Your task to perform on an android device: check android version Image 0: 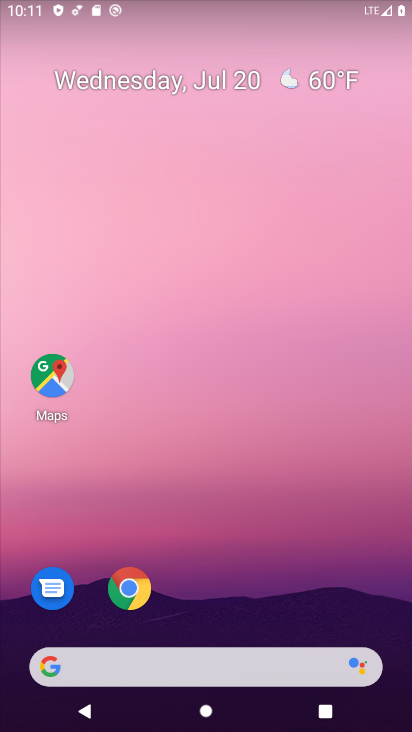
Step 0: drag from (208, 620) to (230, 3)
Your task to perform on an android device: check android version Image 1: 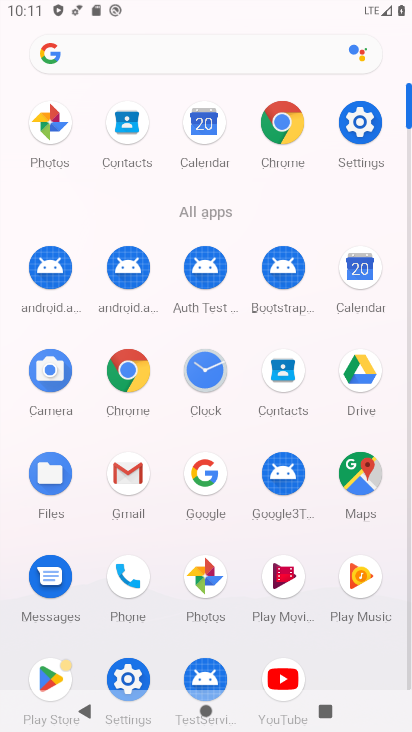
Step 1: click (135, 680)
Your task to perform on an android device: check android version Image 2: 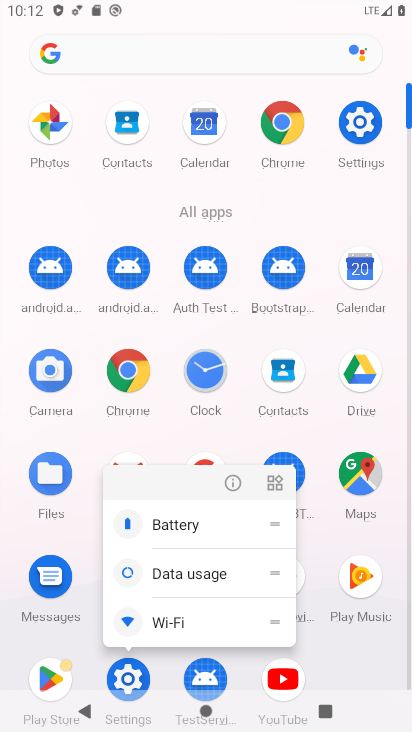
Step 2: click (130, 667)
Your task to perform on an android device: check android version Image 3: 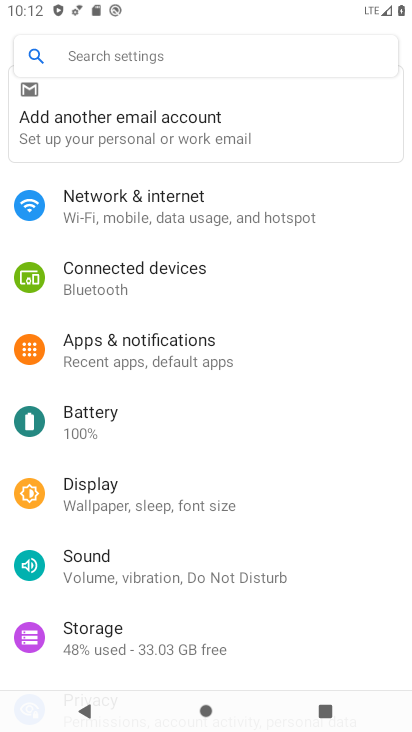
Step 3: drag from (175, 591) to (185, 187)
Your task to perform on an android device: check android version Image 4: 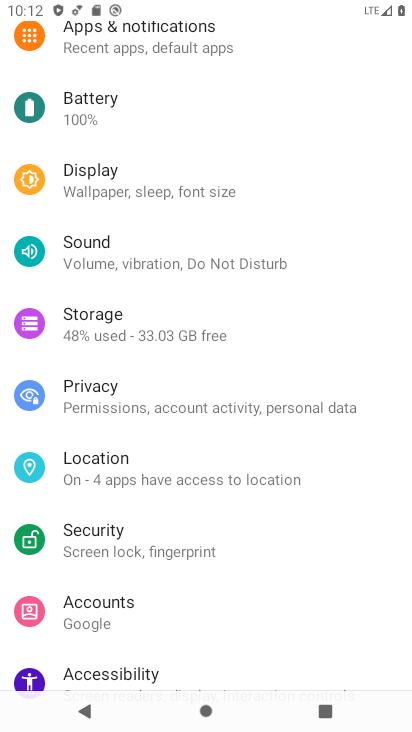
Step 4: drag from (103, 598) to (97, 128)
Your task to perform on an android device: check android version Image 5: 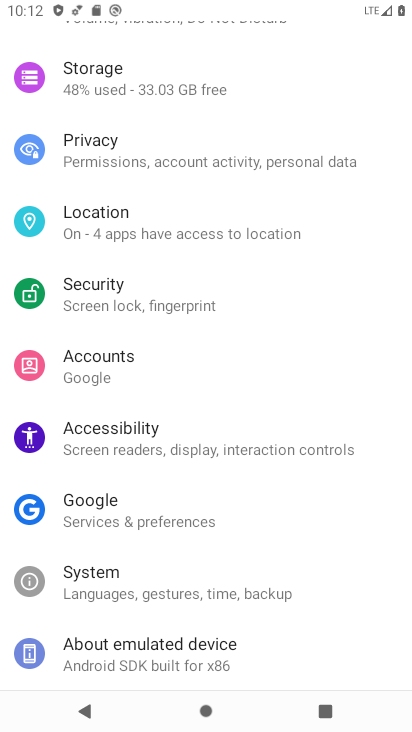
Step 5: click (149, 647)
Your task to perform on an android device: check android version Image 6: 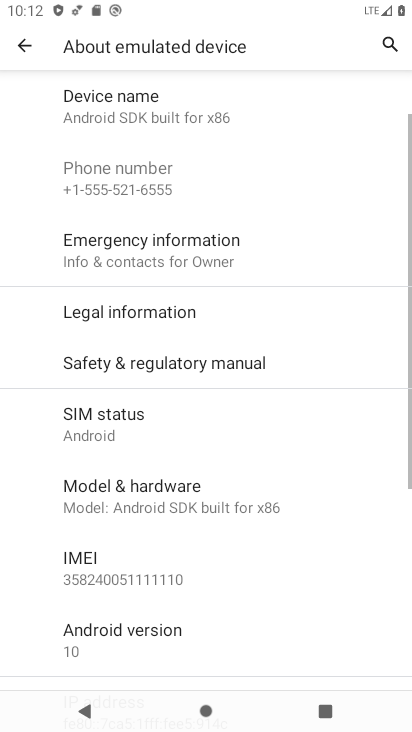
Step 6: click (151, 639)
Your task to perform on an android device: check android version Image 7: 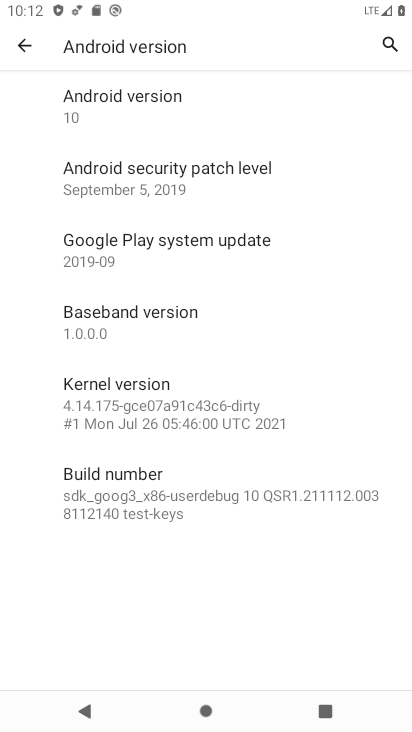
Step 7: task complete